Your task to perform on an android device: Go to Android settings Image 0: 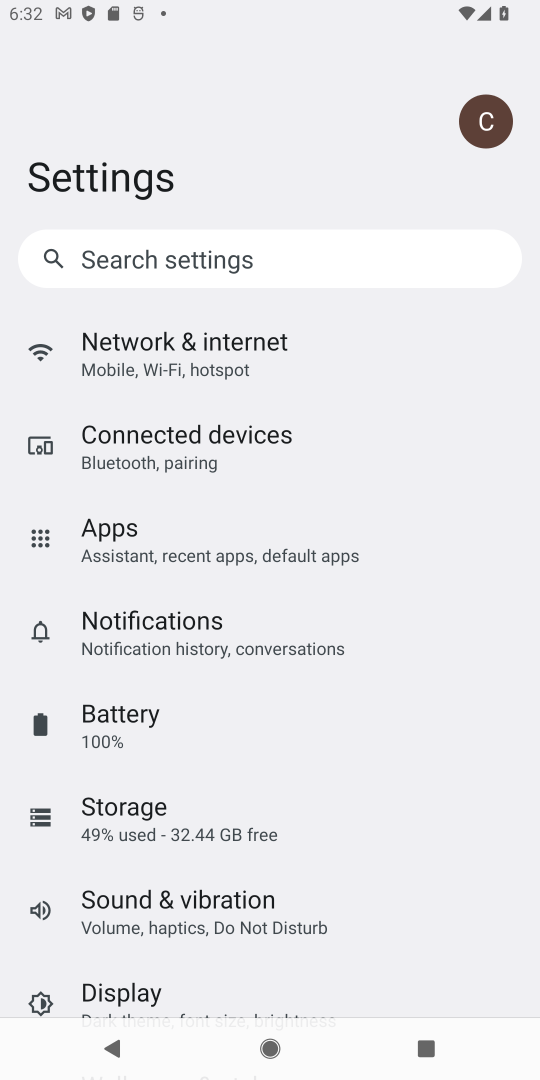
Step 0: press home button
Your task to perform on an android device: Go to Android settings Image 1: 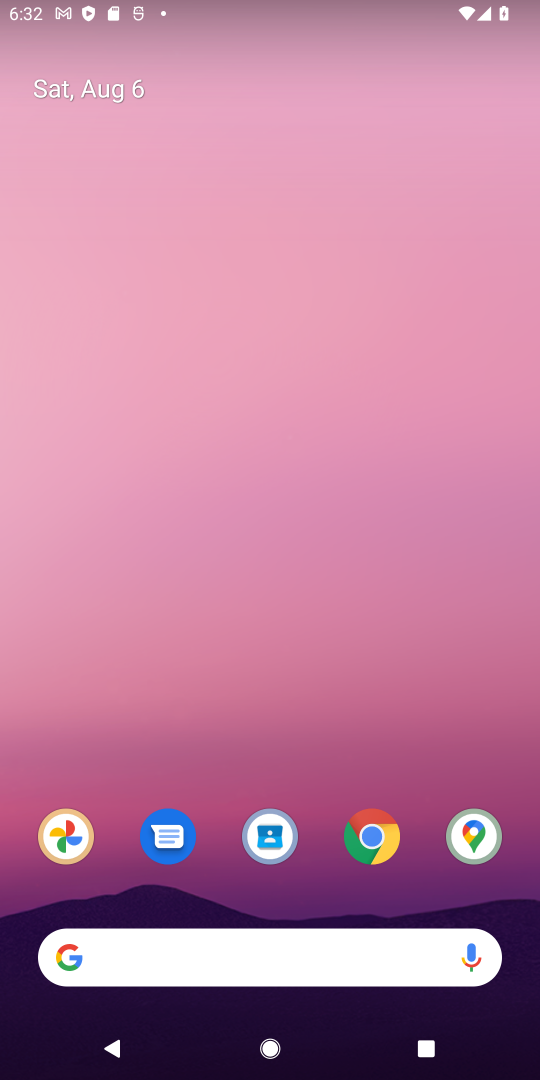
Step 1: drag from (496, 885) to (166, 33)
Your task to perform on an android device: Go to Android settings Image 2: 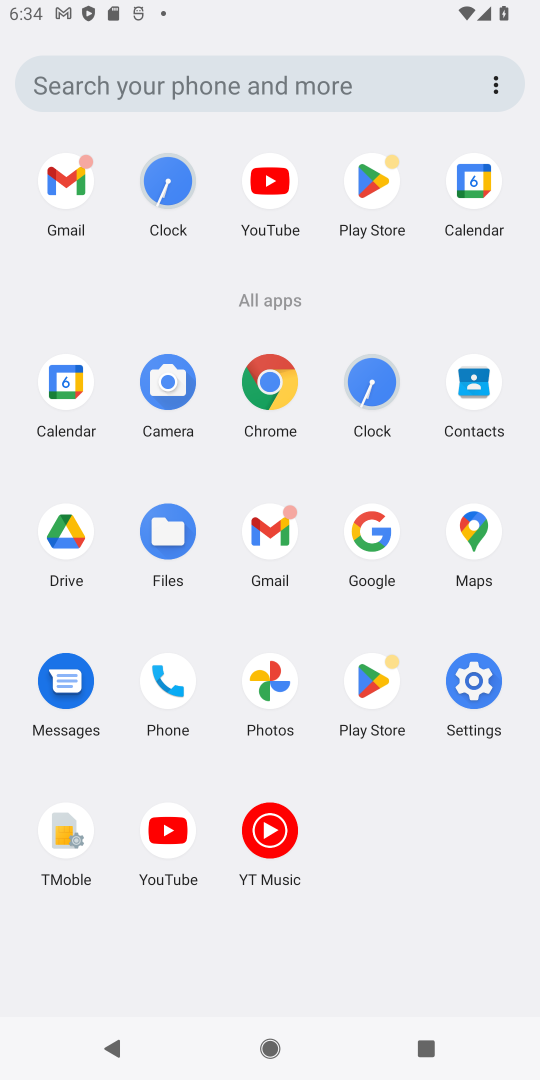
Step 2: click (495, 679)
Your task to perform on an android device: Go to Android settings Image 3: 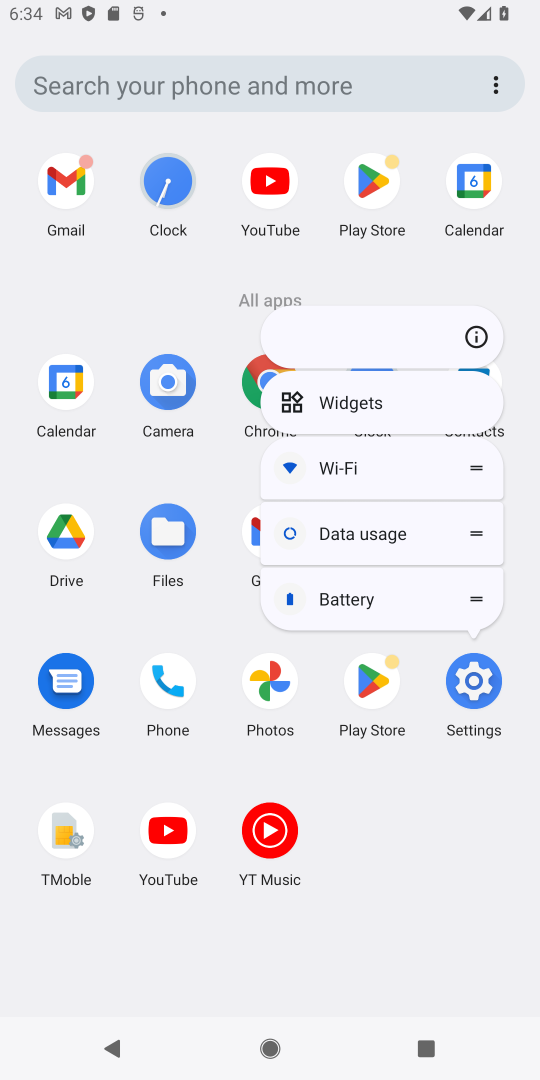
Step 3: click (500, 691)
Your task to perform on an android device: Go to Android settings Image 4: 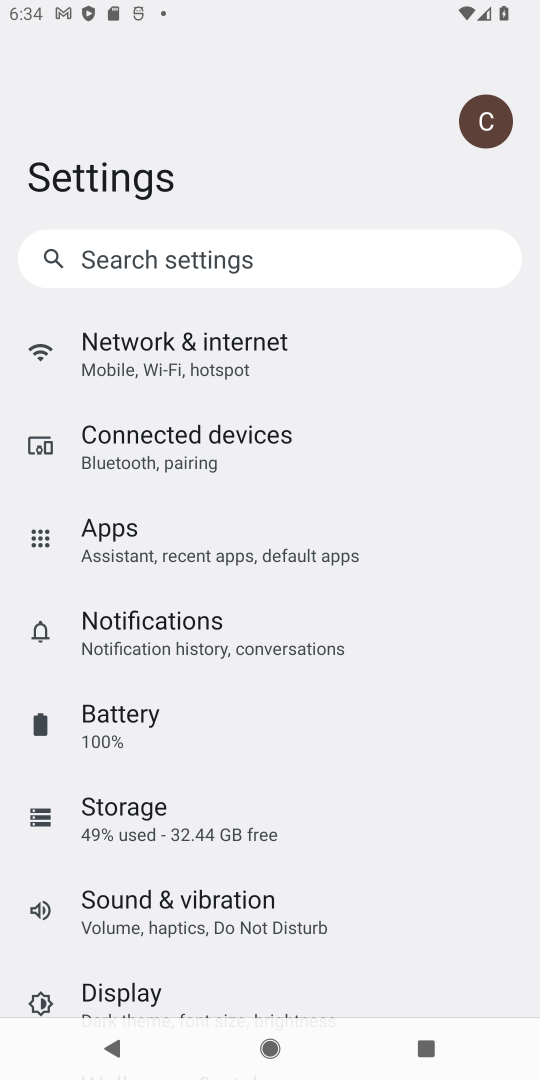
Step 4: task complete